Your task to perform on an android device: Open calendar and show me the fourth week of next month Image 0: 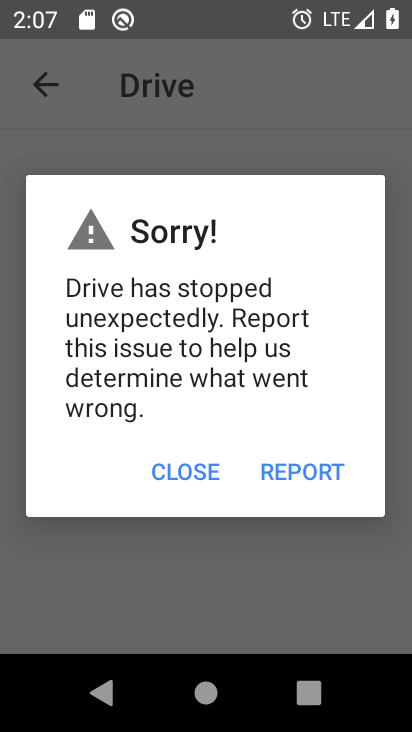
Step 0: click (173, 463)
Your task to perform on an android device: Open calendar and show me the fourth week of next month Image 1: 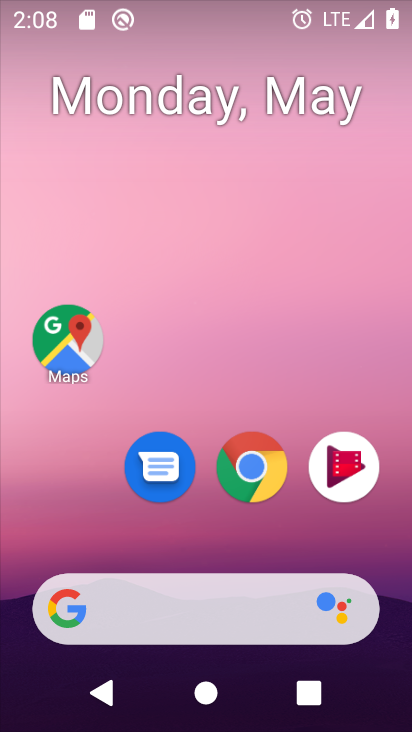
Step 1: press home button
Your task to perform on an android device: Open calendar and show me the fourth week of next month Image 2: 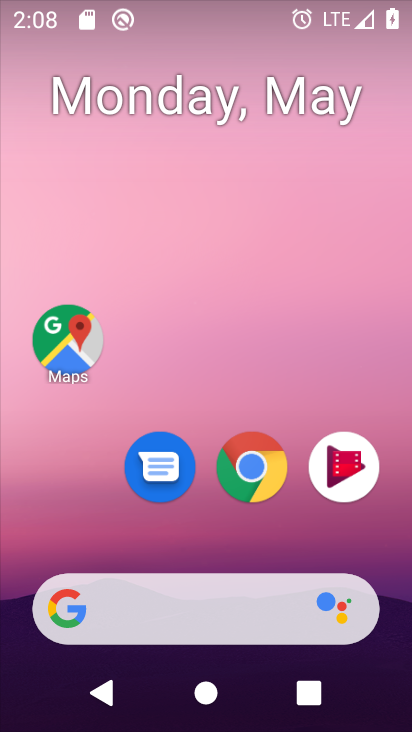
Step 2: drag from (204, 535) to (205, 161)
Your task to perform on an android device: Open calendar and show me the fourth week of next month Image 3: 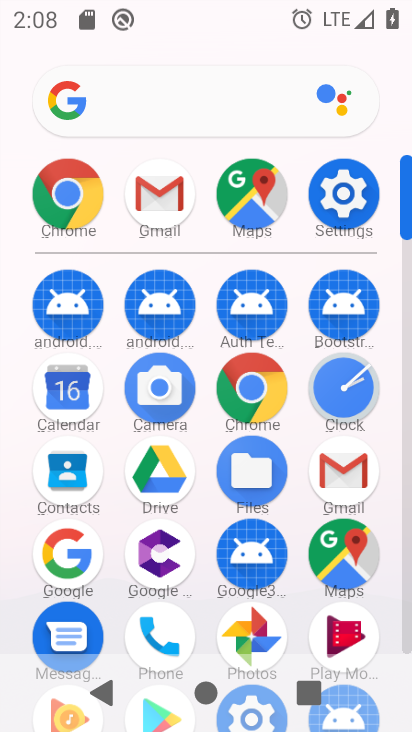
Step 3: click (60, 369)
Your task to perform on an android device: Open calendar and show me the fourth week of next month Image 4: 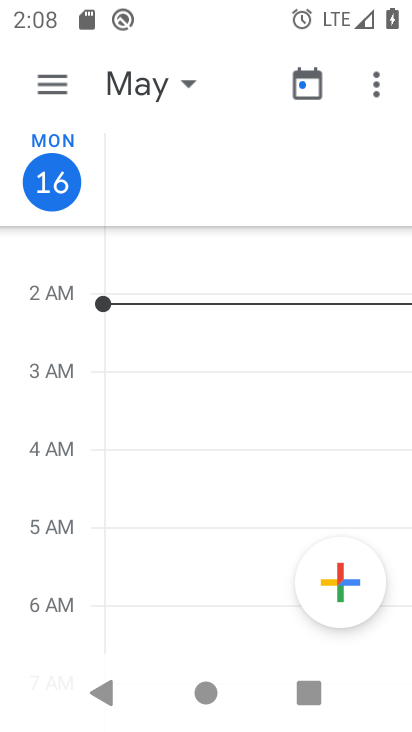
Step 4: click (42, 82)
Your task to perform on an android device: Open calendar and show me the fourth week of next month Image 5: 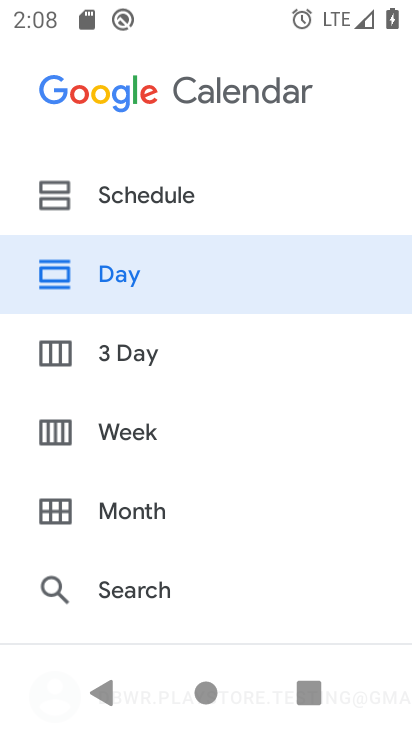
Step 5: click (133, 528)
Your task to perform on an android device: Open calendar and show me the fourth week of next month Image 6: 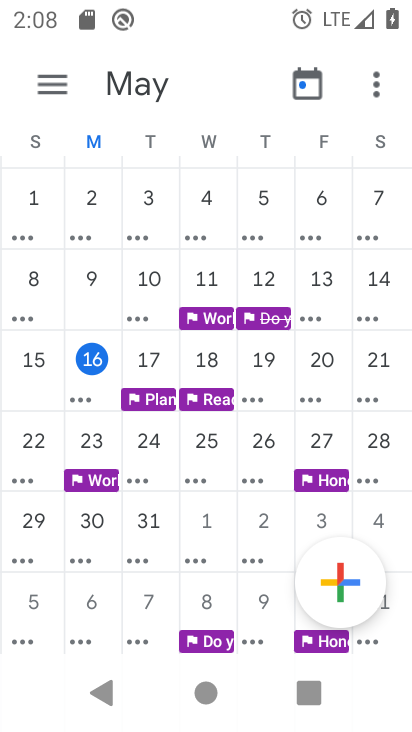
Step 6: task complete